Your task to perform on an android device: add a contact in the contacts app Image 0: 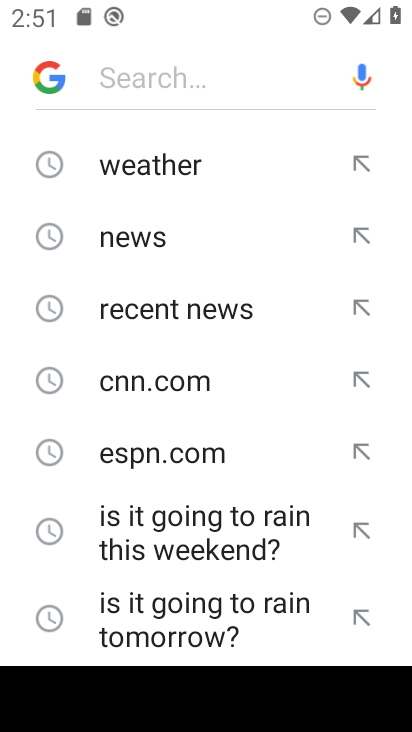
Step 0: press back button
Your task to perform on an android device: add a contact in the contacts app Image 1: 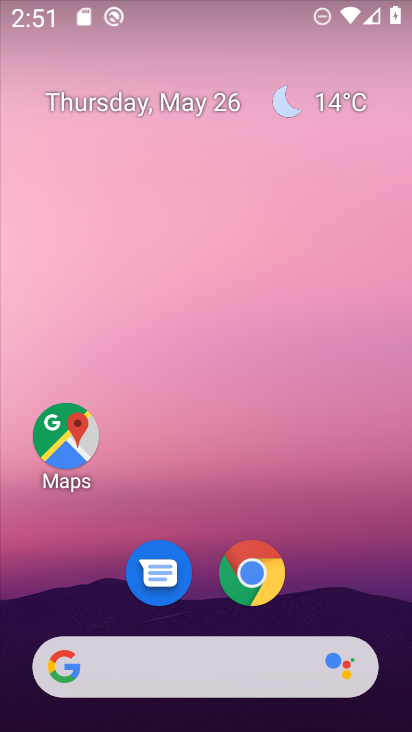
Step 1: drag from (329, 609) to (242, 61)
Your task to perform on an android device: add a contact in the contacts app Image 2: 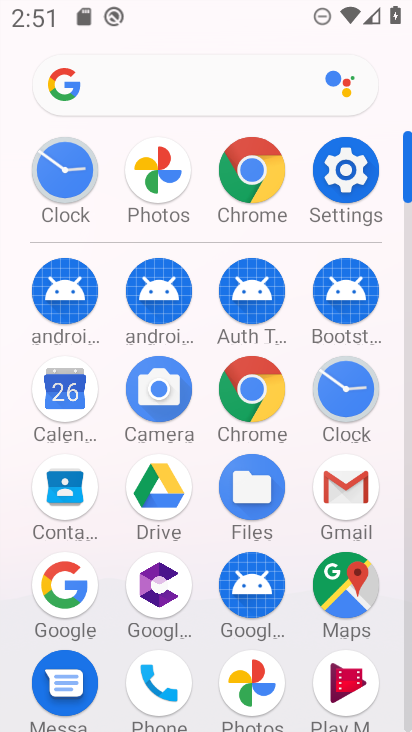
Step 2: drag from (5, 558) to (16, 301)
Your task to perform on an android device: add a contact in the contacts app Image 3: 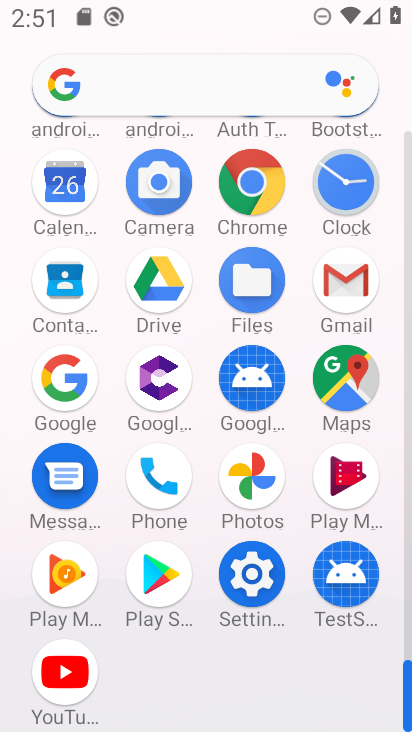
Step 3: click (60, 267)
Your task to perform on an android device: add a contact in the contacts app Image 4: 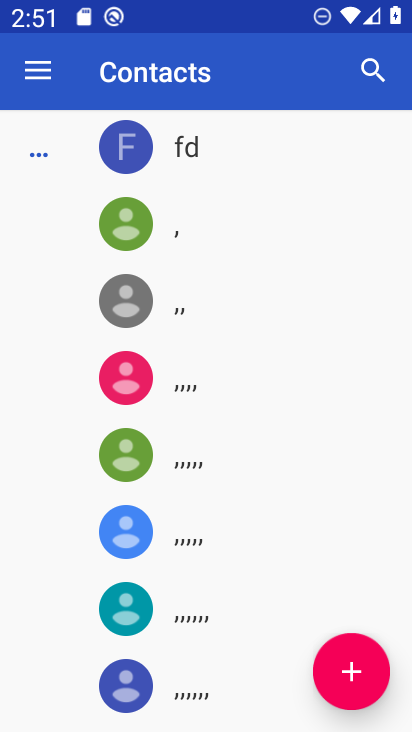
Step 4: click (343, 665)
Your task to perform on an android device: add a contact in the contacts app Image 5: 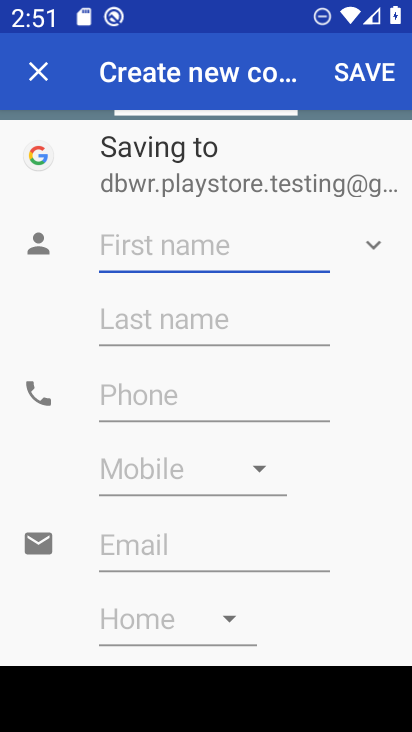
Step 5: type ""
Your task to perform on an android device: add a contact in the contacts app Image 6: 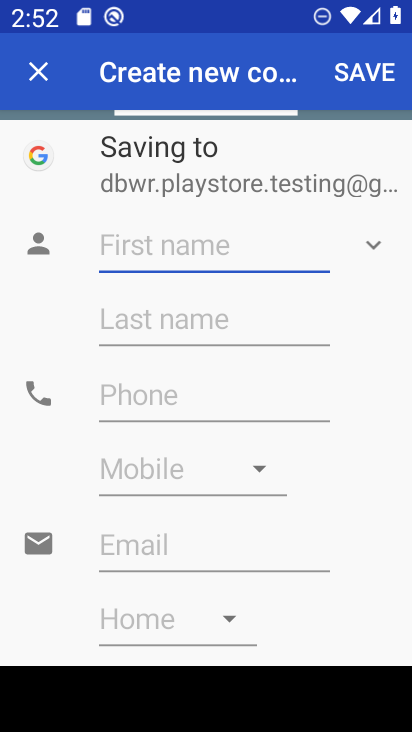
Step 6: type "wert"
Your task to perform on an android device: add a contact in the contacts app Image 7: 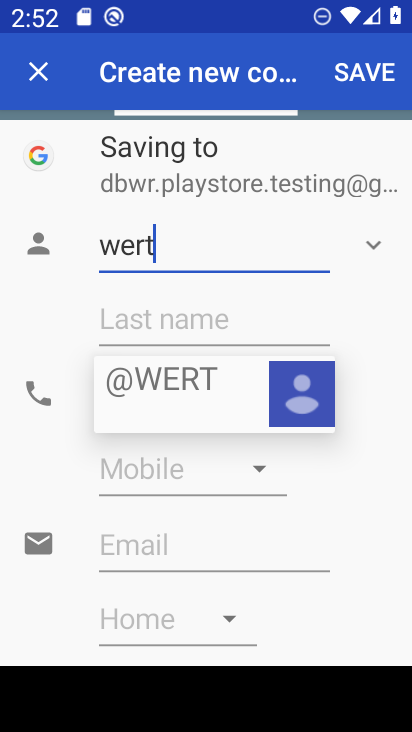
Step 7: click (172, 394)
Your task to perform on an android device: add a contact in the contacts app Image 8: 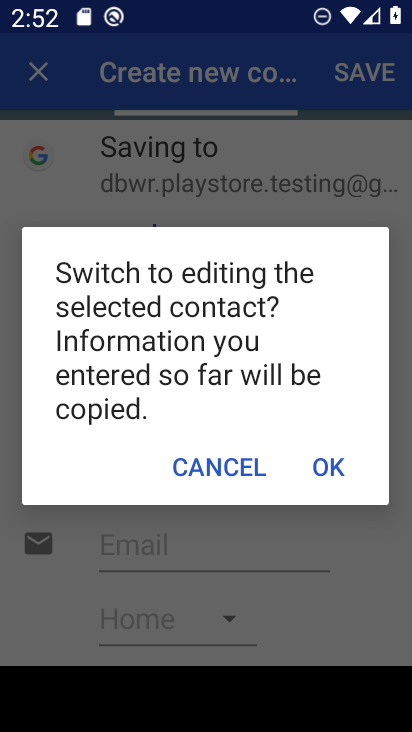
Step 8: click (328, 459)
Your task to perform on an android device: add a contact in the contacts app Image 9: 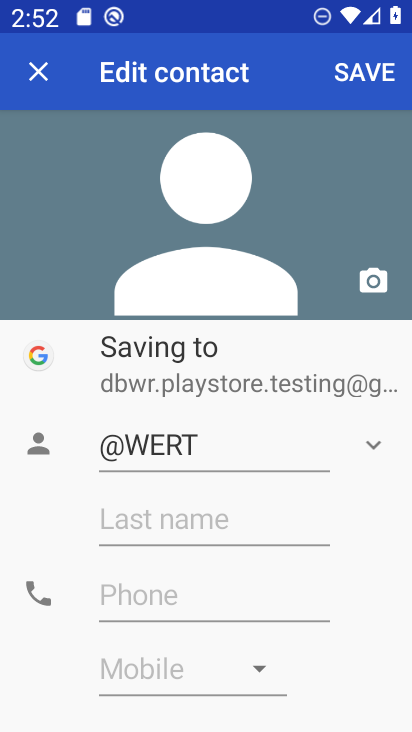
Step 9: click (373, 79)
Your task to perform on an android device: add a contact in the contacts app Image 10: 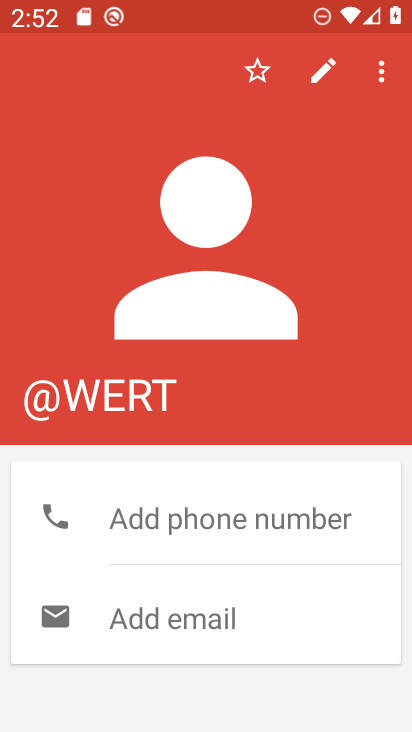
Step 10: task complete